Your task to perform on an android device: all mails in gmail Image 0: 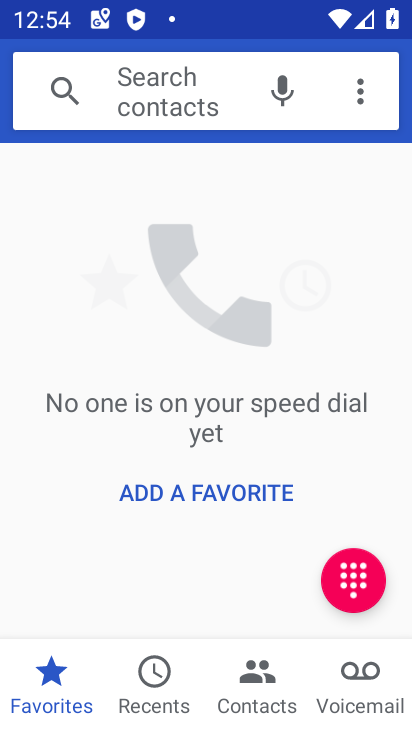
Step 0: press home button
Your task to perform on an android device: all mails in gmail Image 1: 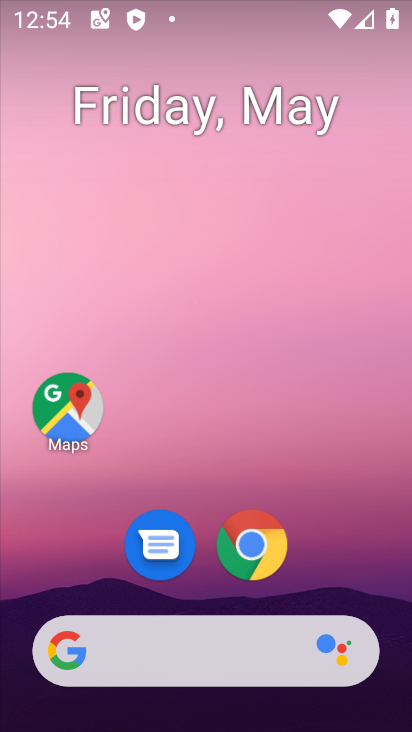
Step 1: drag from (351, 553) to (325, 54)
Your task to perform on an android device: all mails in gmail Image 2: 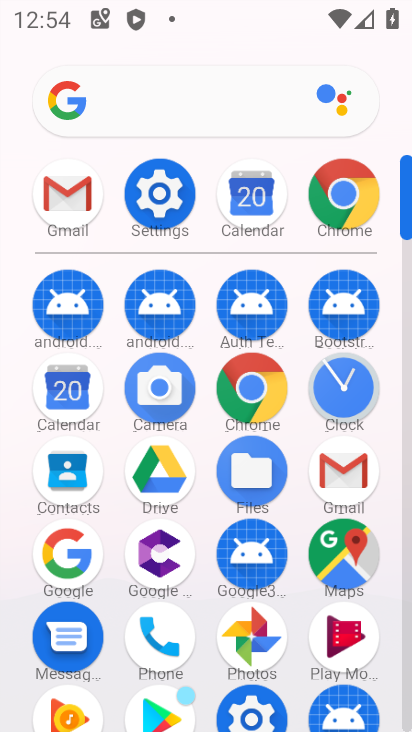
Step 2: click (67, 188)
Your task to perform on an android device: all mails in gmail Image 3: 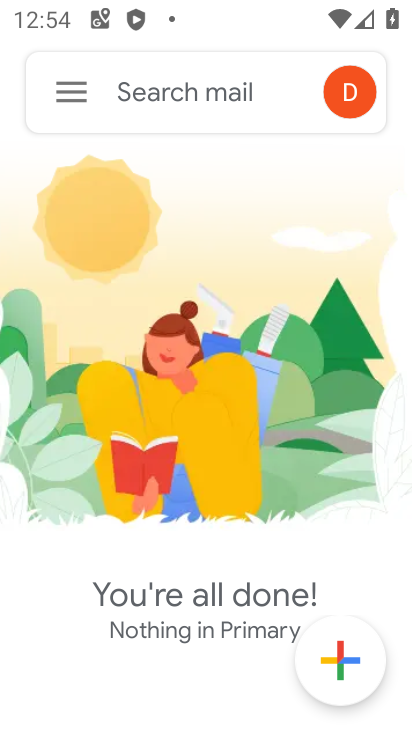
Step 3: click (80, 86)
Your task to perform on an android device: all mails in gmail Image 4: 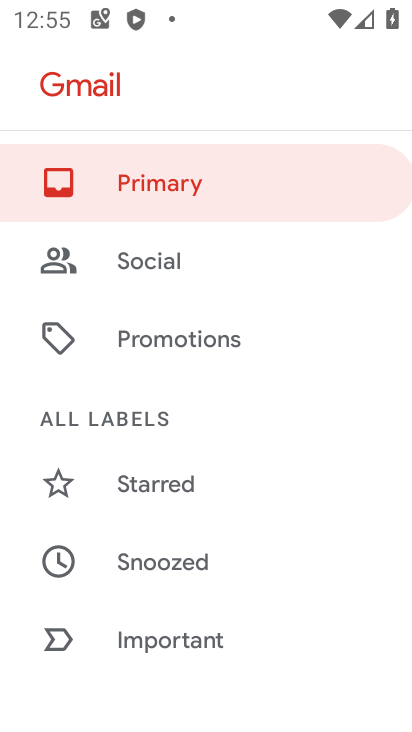
Step 4: drag from (230, 597) to (254, 197)
Your task to perform on an android device: all mails in gmail Image 5: 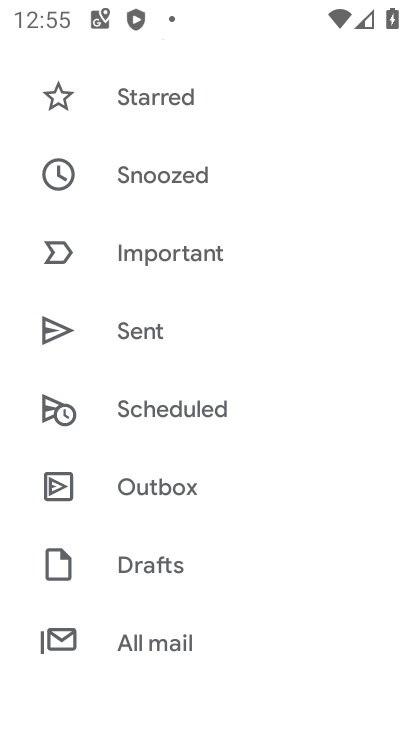
Step 5: click (170, 641)
Your task to perform on an android device: all mails in gmail Image 6: 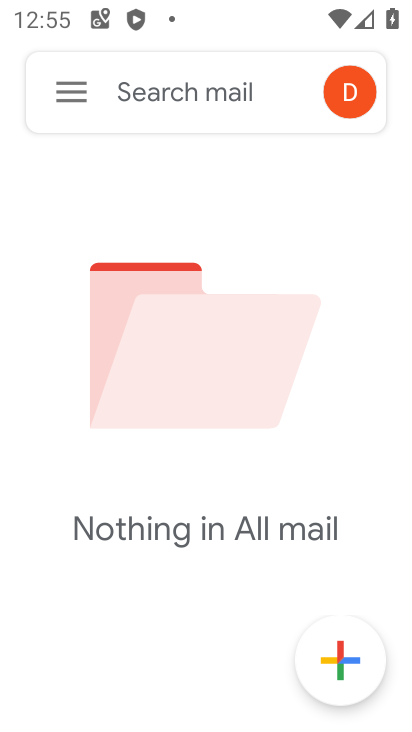
Step 6: task complete